Your task to perform on an android device: Open the calendar app, open the side menu, and click the "Day" option Image 0: 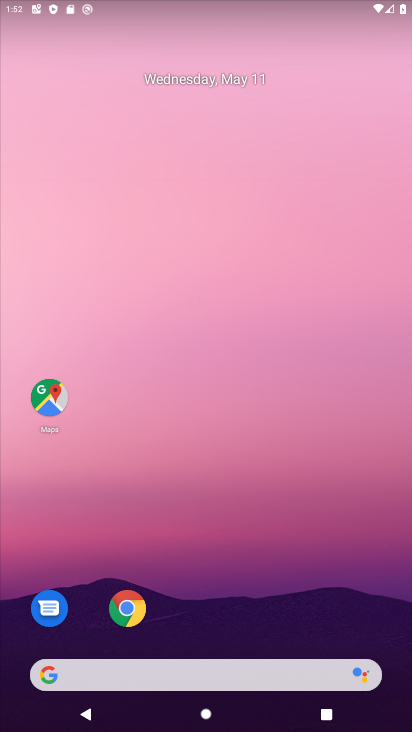
Step 0: click (3, 625)
Your task to perform on an android device: Open the calendar app, open the side menu, and click the "Day" option Image 1: 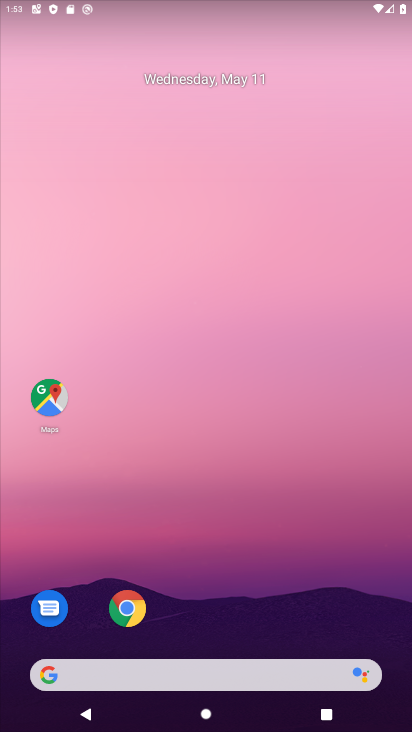
Step 1: drag from (258, 664) to (240, 158)
Your task to perform on an android device: Open the calendar app, open the side menu, and click the "Day" option Image 2: 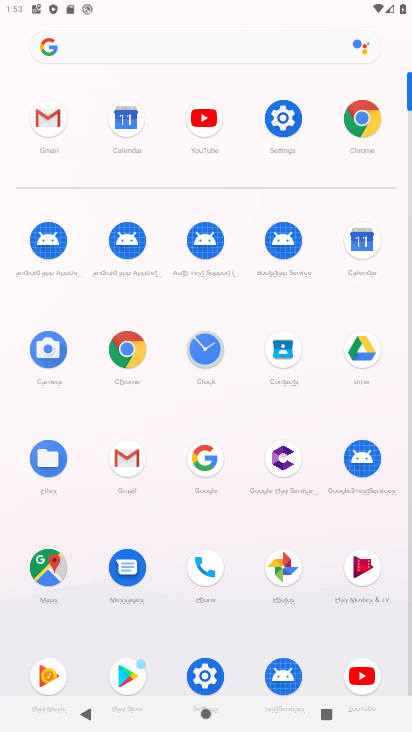
Step 2: click (368, 238)
Your task to perform on an android device: Open the calendar app, open the side menu, and click the "Day" option Image 3: 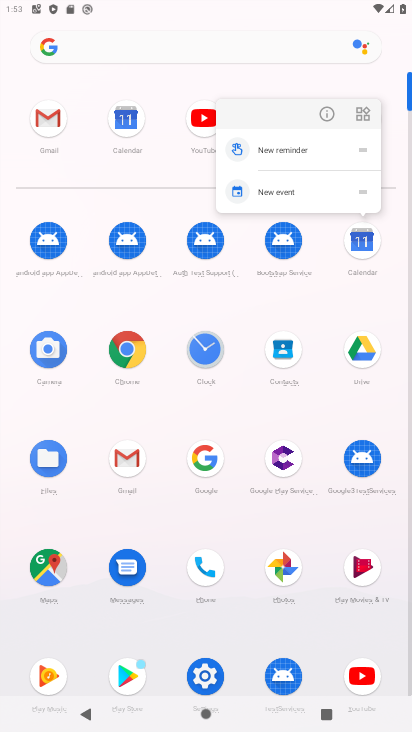
Step 3: click (368, 240)
Your task to perform on an android device: Open the calendar app, open the side menu, and click the "Day" option Image 4: 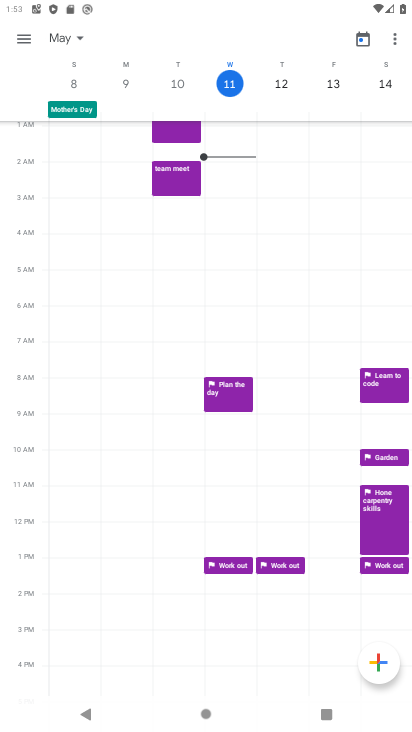
Step 4: click (30, 28)
Your task to perform on an android device: Open the calendar app, open the side menu, and click the "Day" option Image 5: 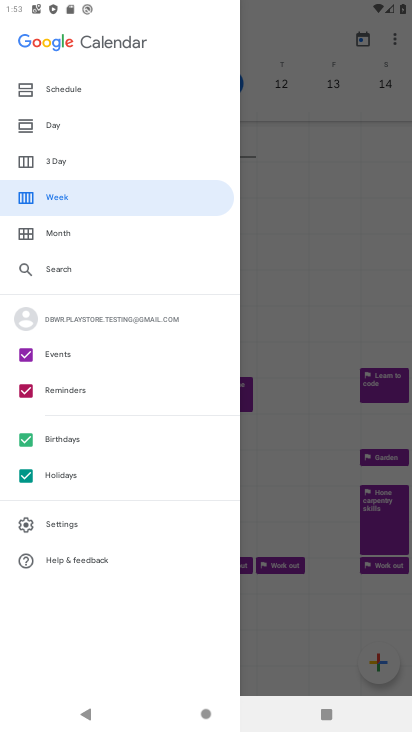
Step 5: click (39, 133)
Your task to perform on an android device: Open the calendar app, open the side menu, and click the "Day" option Image 6: 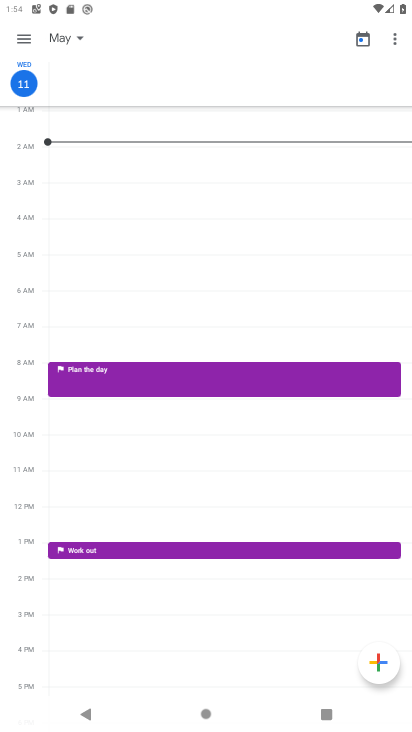
Step 6: task complete